Your task to perform on an android device: find which apps use the phone's location Image 0: 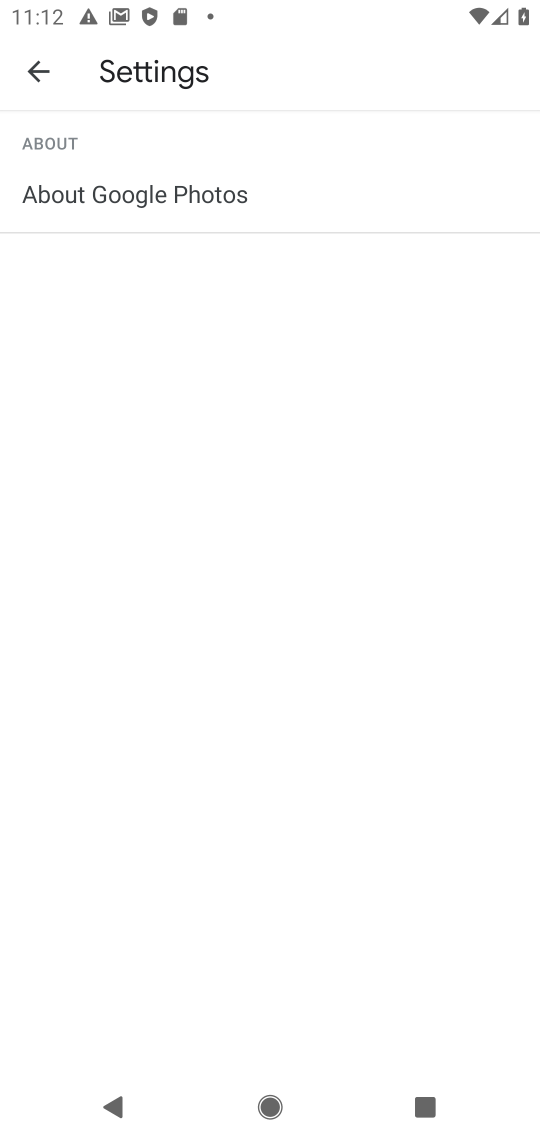
Step 0: press home button
Your task to perform on an android device: find which apps use the phone's location Image 1: 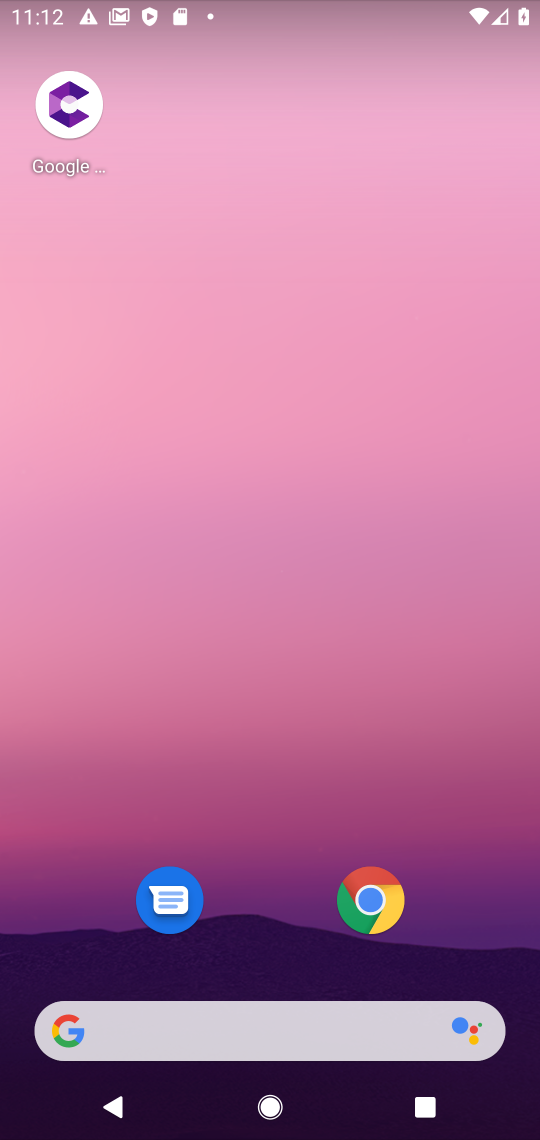
Step 1: drag from (279, 633) to (279, 148)
Your task to perform on an android device: find which apps use the phone's location Image 2: 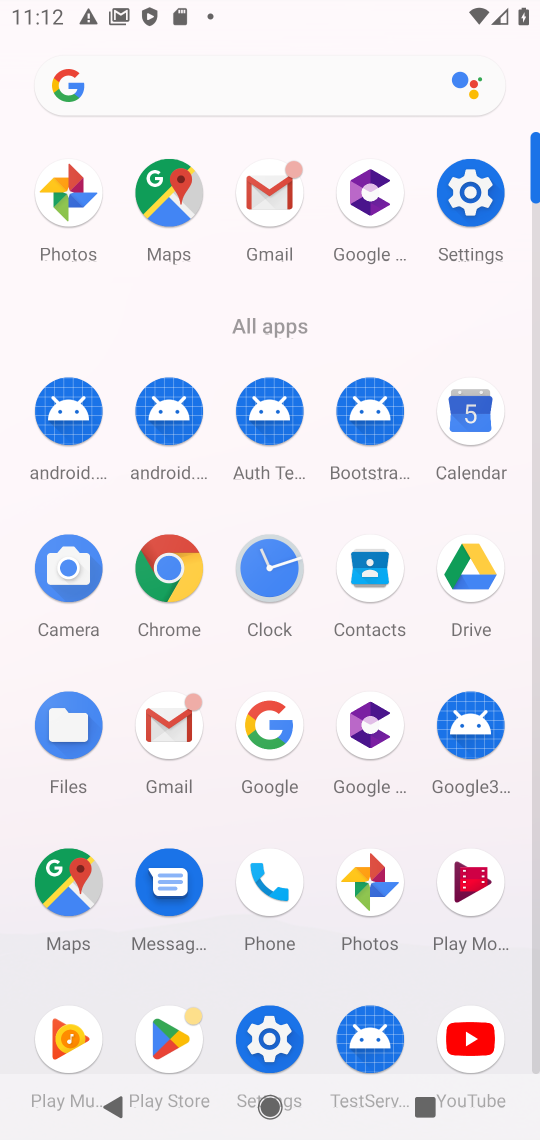
Step 2: click (465, 198)
Your task to perform on an android device: find which apps use the phone's location Image 3: 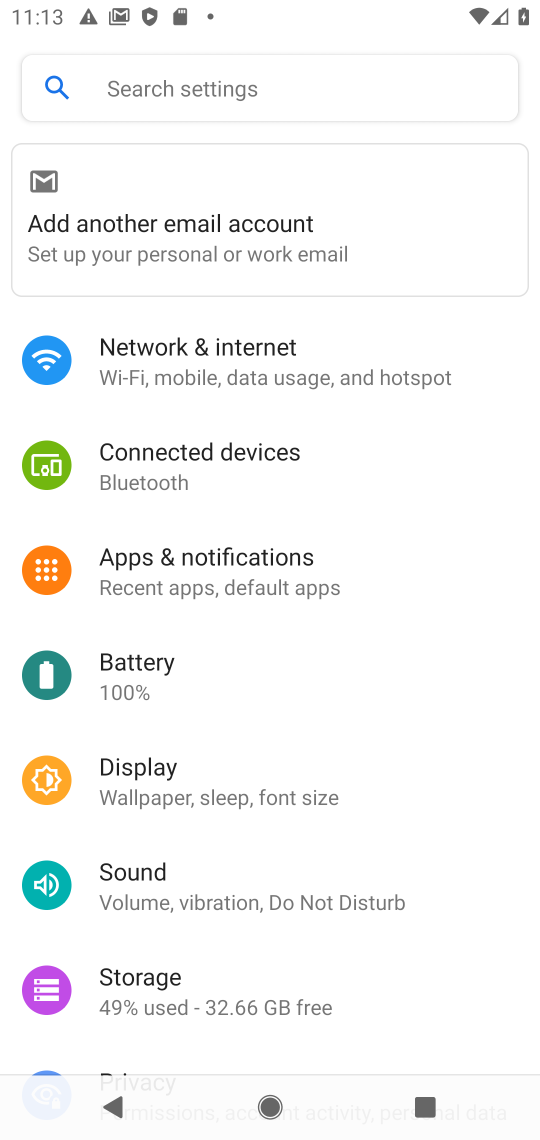
Step 3: drag from (179, 1015) to (157, 534)
Your task to perform on an android device: find which apps use the phone's location Image 4: 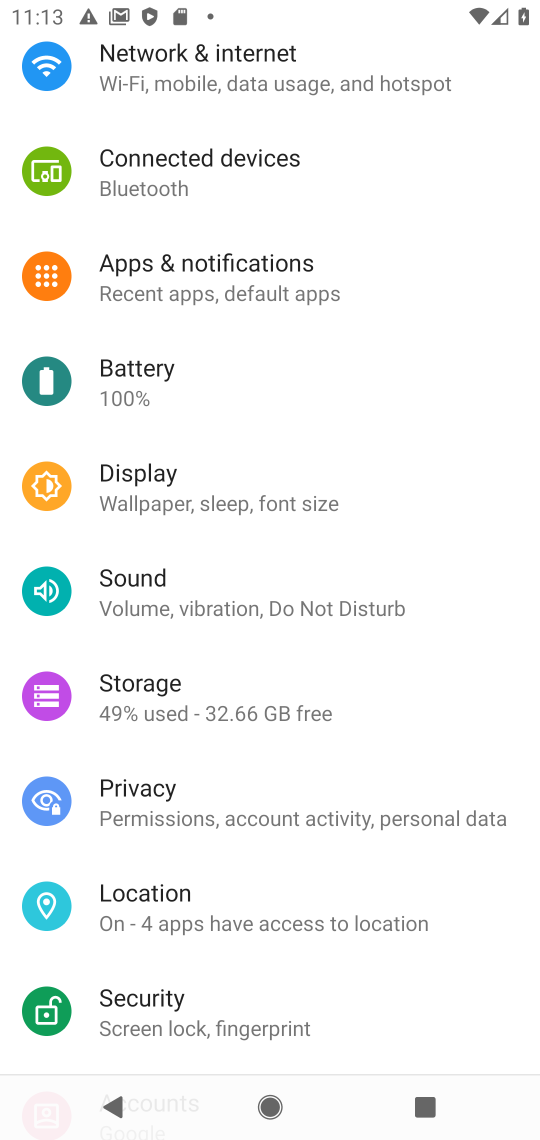
Step 4: click (148, 908)
Your task to perform on an android device: find which apps use the phone's location Image 5: 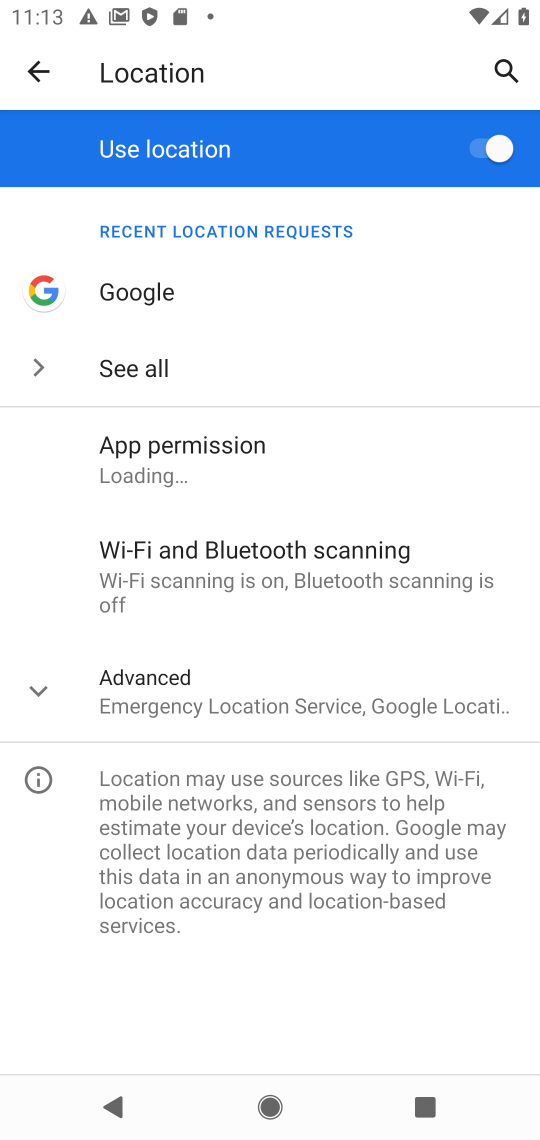
Step 5: click (184, 451)
Your task to perform on an android device: find which apps use the phone's location Image 6: 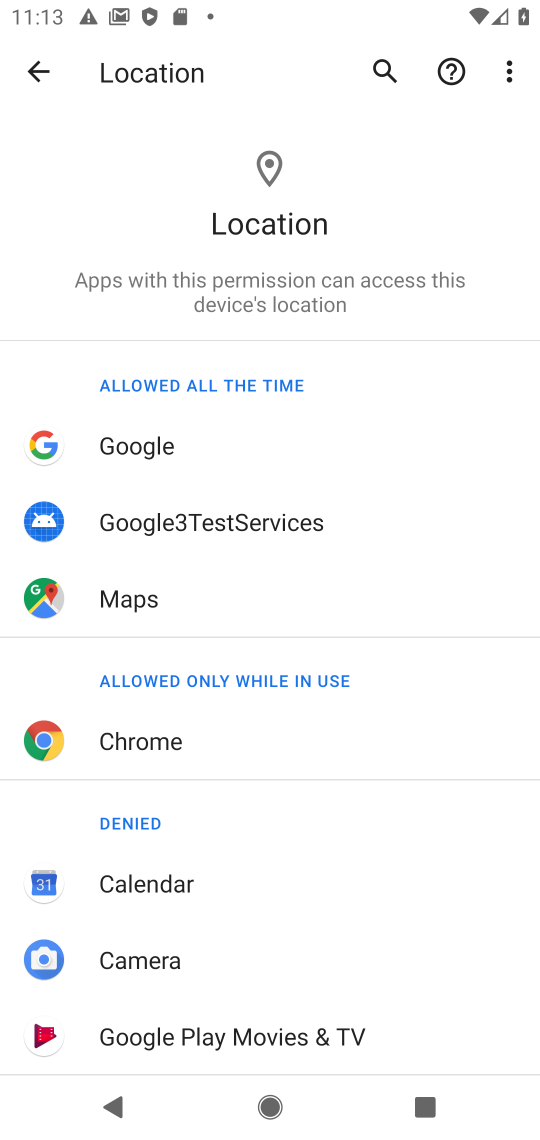
Step 6: task complete